Your task to perform on an android device: stop showing notifications on the lock screen Image 0: 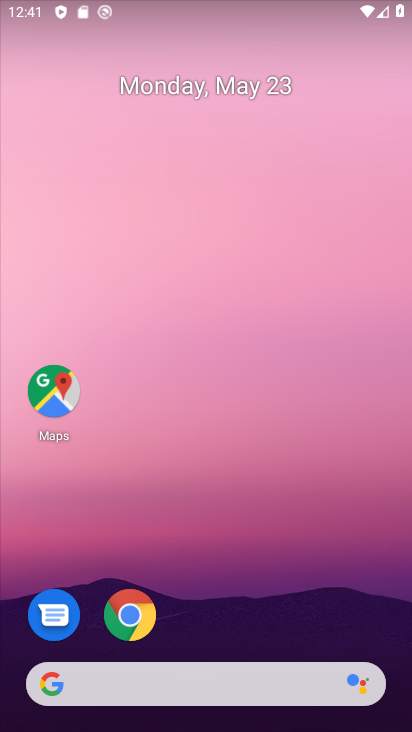
Step 0: drag from (192, 728) to (183, 111)
Your task to perform on an android device: stop showing notifications on the lock screen Image 1: 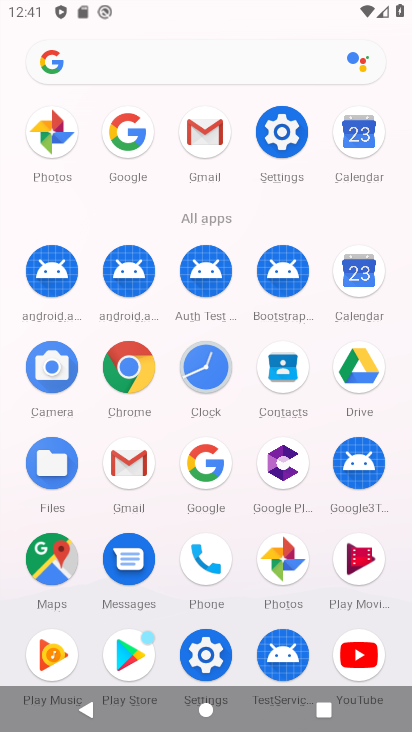
Step 1: click (280, 143)
Your task to perform on an android device: stop showing notifications on the lock screen Image 2: 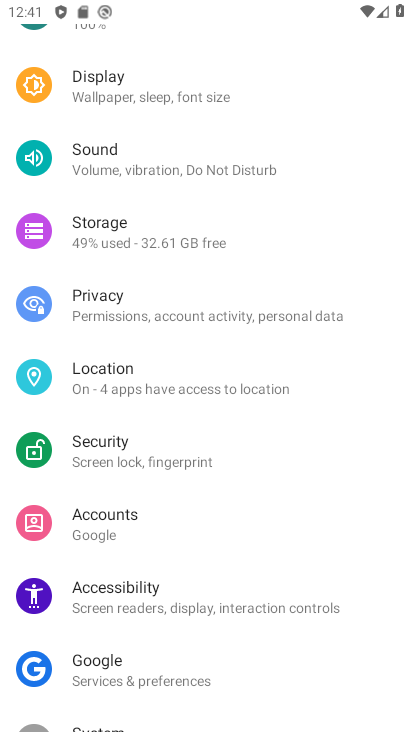
Step 2: drag from (147, 165) to (189, 502)
Your task to perform on an android device: stop showing notifications on the lock screen Image 3: 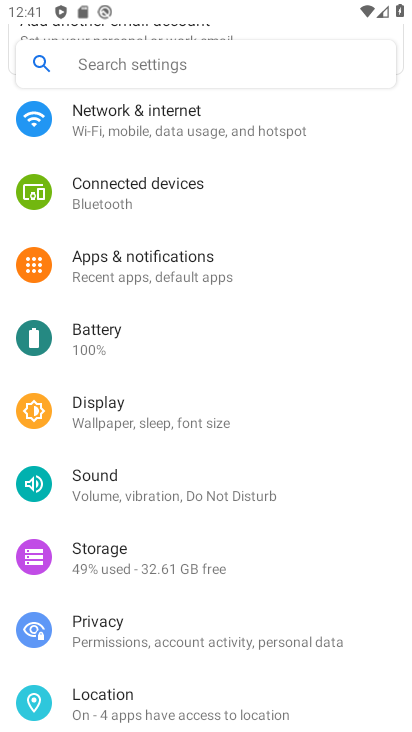
Step 3: click (155, 268)
Your task to perform on an android device: stop showing notifications on the lock screen Image 4: 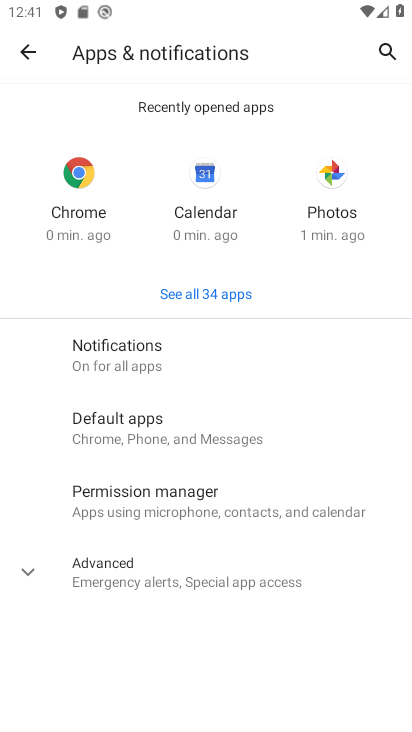
Step 4: click (108, 359)
Your task to perform on an android device: stop showing notifications on the lock screen Image 5: 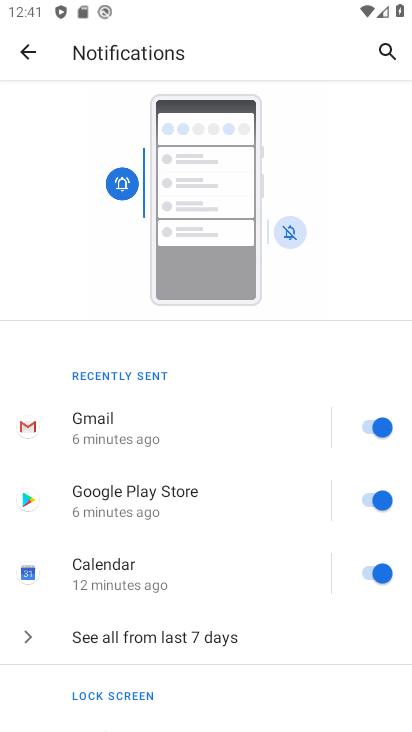
Step 5: drag from (187, 680) to (192, 334)
Your task to perform on an android device: stop showing notifications on the lock screen Image 6: 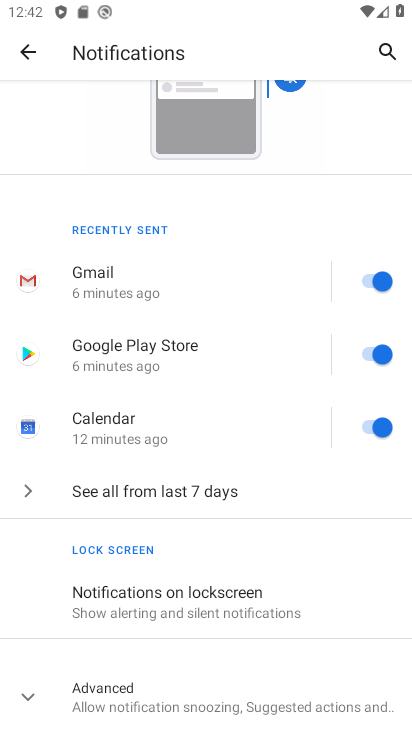
Step 6: click (147, 602)
Your task to perform on an android device: stop showing notifications on the lock screen Image 7: 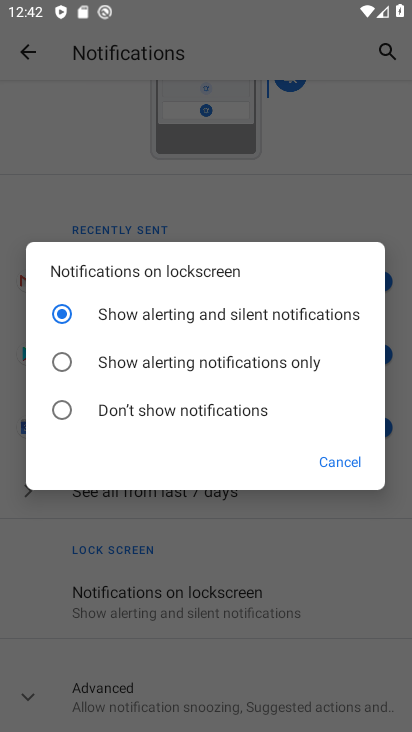
Step 7: click (59, 416)
Your task to perform on an android device: stop showing notifications on the lock screen Image 8: 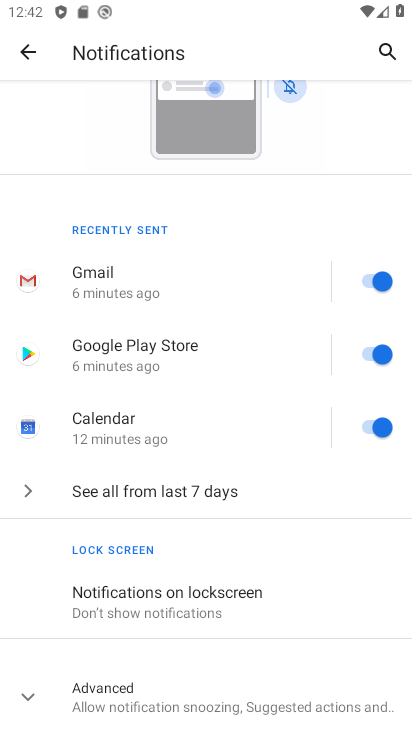
Step 8: task complete